Your task to perform on an android device: open sync settings in chrome Image 0: 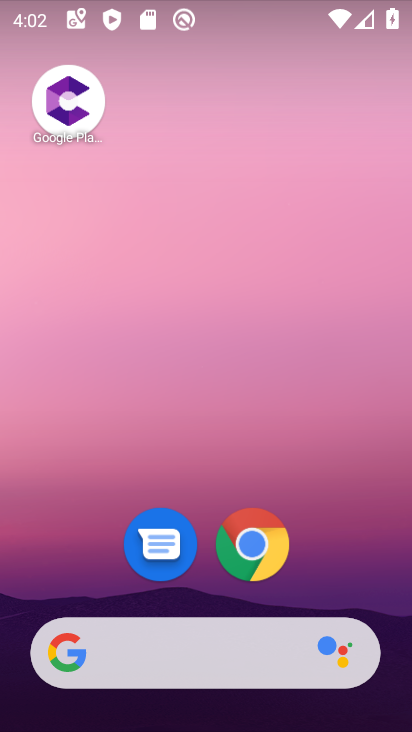
Step 0: click (261, 564)
Your task to perform on an android device: open sync settings in chrome Image 1: 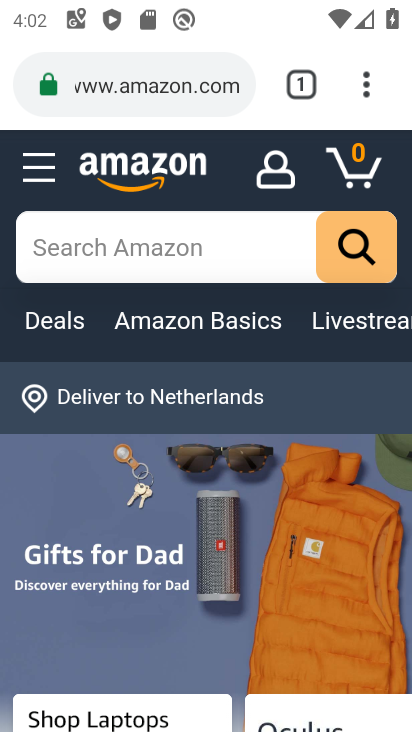
Step 1: click (364, 84)
Your task to perform on an android device: open sync settings in chrome Image 2: 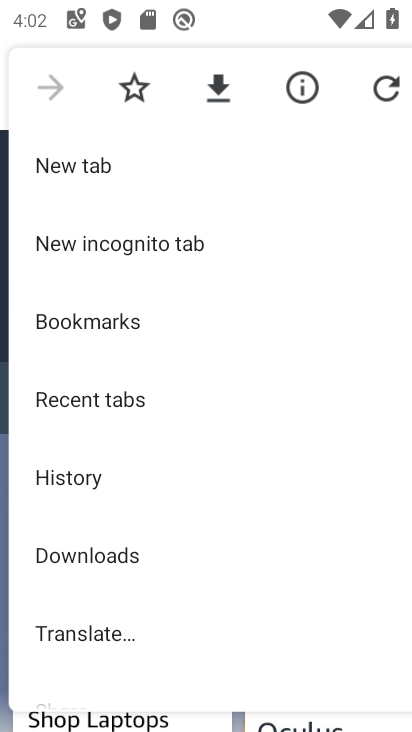
Step 2: drag from (182, 520) to (190, 175)
Your task to perform on an android device: open sync settings in chrome Image 3: 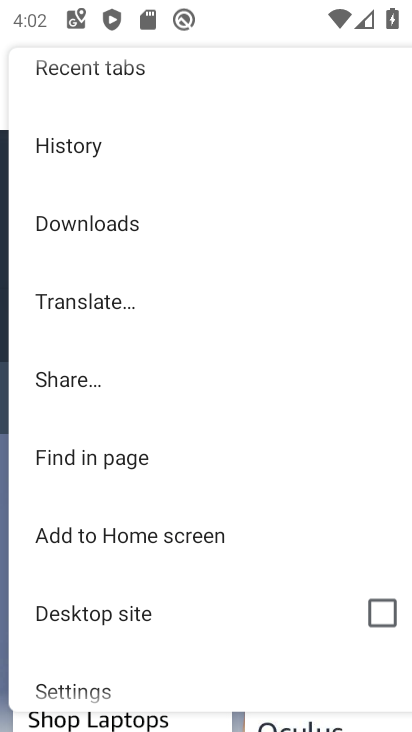
Step 3: drag from (179, 565) to (197, 206)
Your task to perform on an android device: open sync settings in chrome Image 4: 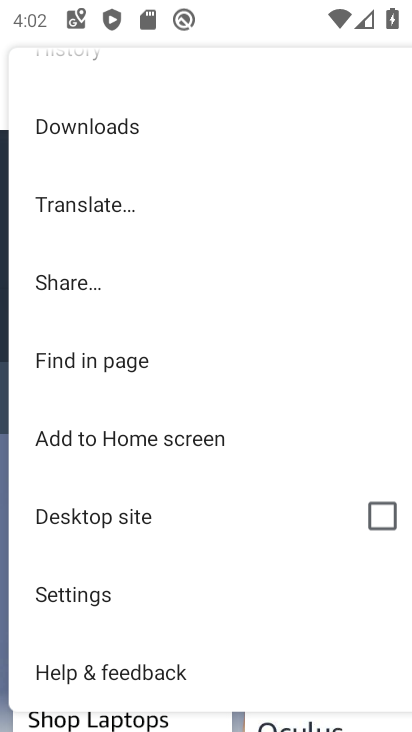
Step 4: click (80, 596)
Your task to perform on an android device: open sync settings in chrome Image 5: 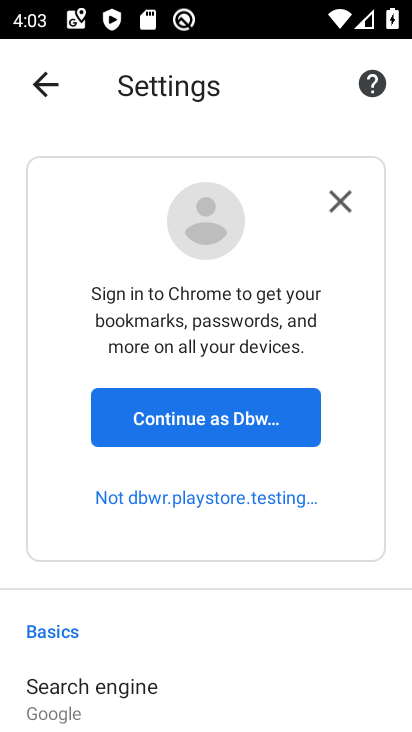
Step 5: click (180, 427)
Your task to perform on an android device: open sync settings in chrome Image 6: 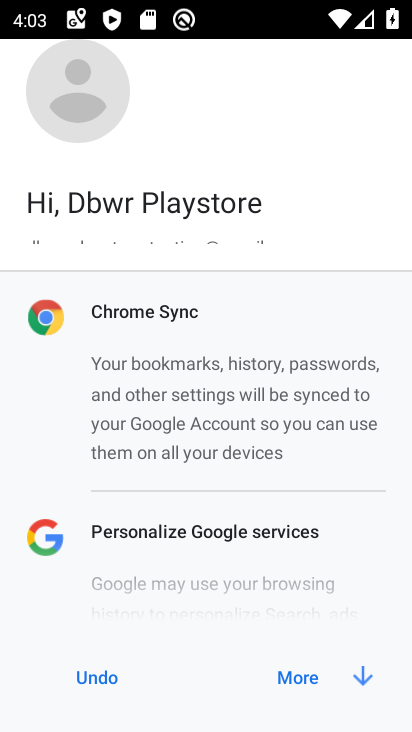
Step 6: click (286, 680)
Your task to perform on an android device: open sync settings in chrome Image 7: 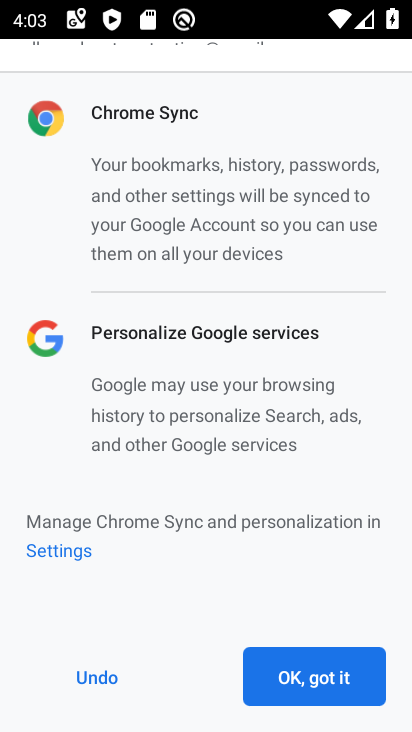
Step 7: click (286, 680)
Your task to perform on an android device: open sync settings in chrome Image 8: 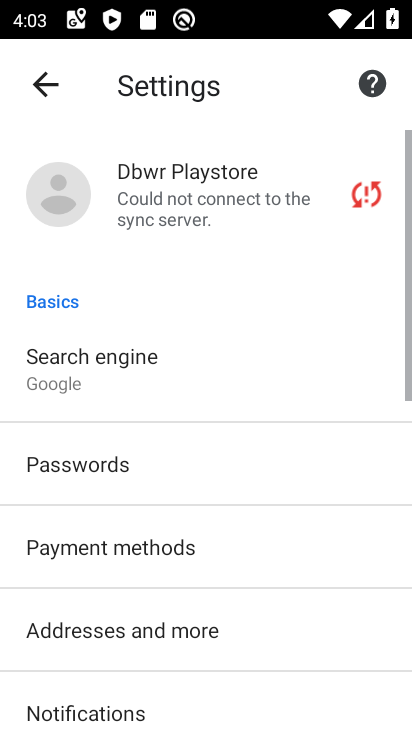
Step 8: click (182, 203)
Your task to perform on an android device: open sync settings in chrome Image 9: 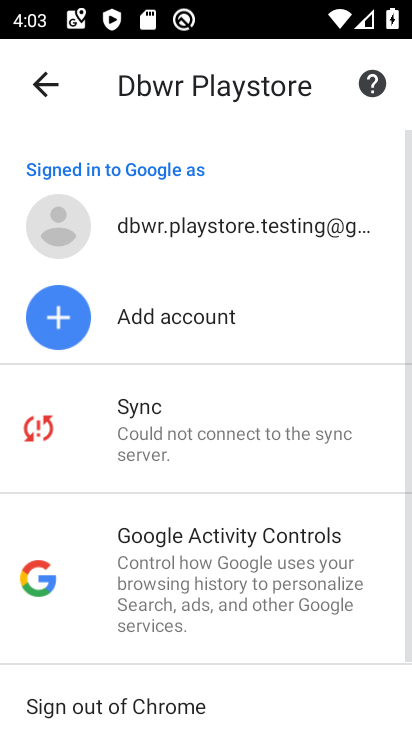
Step 9: click (151, 437)
Your task to perform on an android device: open sync settings in chrome Image 10: 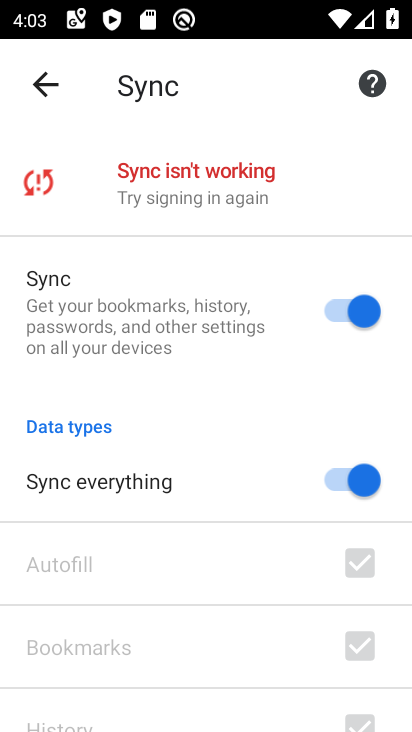
Step 10: task complete